Your task to perform on an android device: Search for vegetarian restaurants on Maps Image 0: 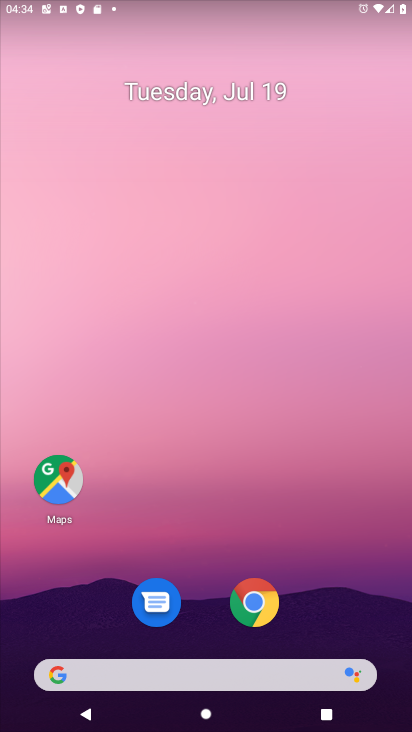
Step 0: click (68, 488)
Your task to perform on an android device: Search for vegetarian restaurants on Maps Image 1: 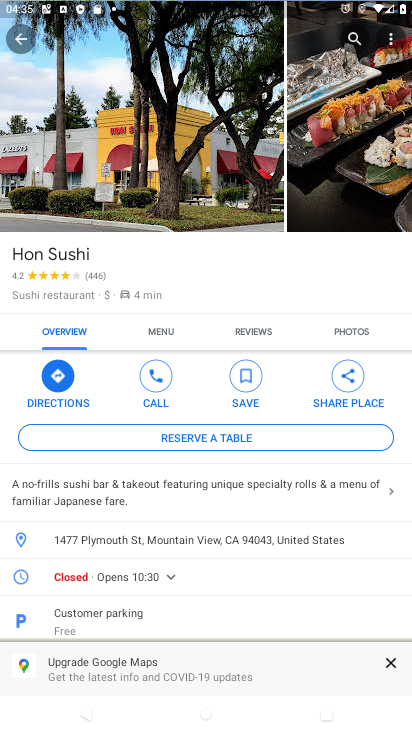
Step 1: click (19, 48)
Your task to perform on an android device: Search for vegetarian restaurants on Maps Image 2: 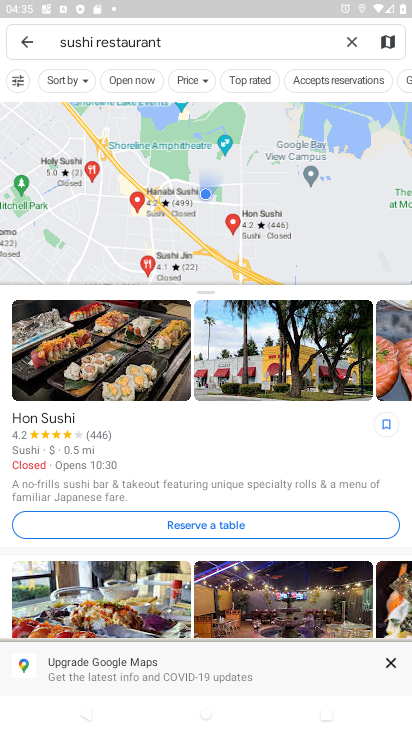
Step 2: click (356, 35)
Your task to perform on an android device: Search for vegetarian restaurants on Maps Image 3: 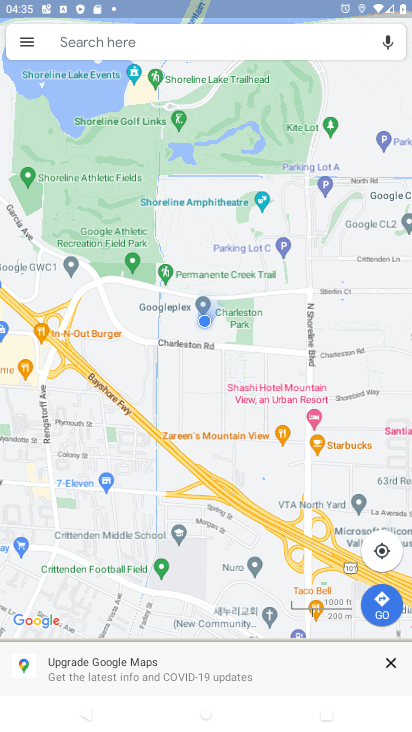
Step 3: click (146, 56)
Your task to perform on an android device: Search for vegetarian restaurants on Maps Image 4: 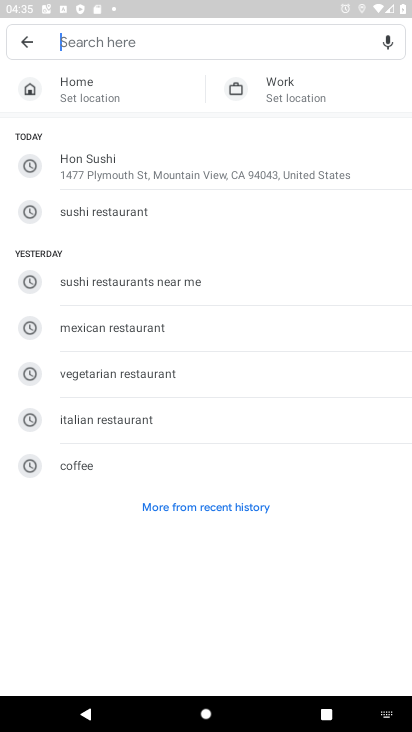
Step 4: click (226, 380)
Your task to perform on an android device: Search for vegetarian restaurants on Maps Image 5: 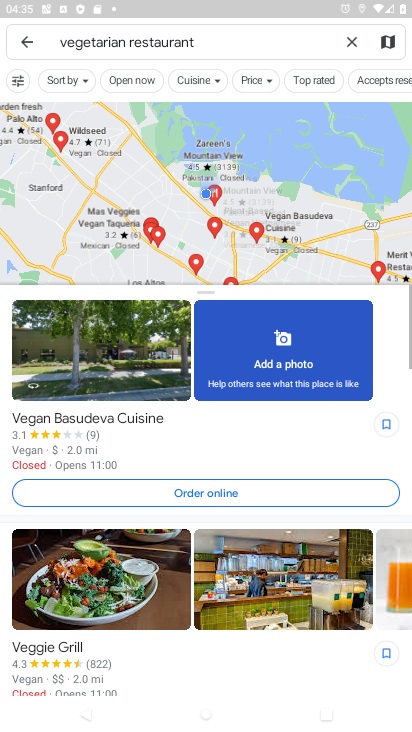
Step 5: task complete